Your task to perform on an android device: Go to wifi settings Image 0: 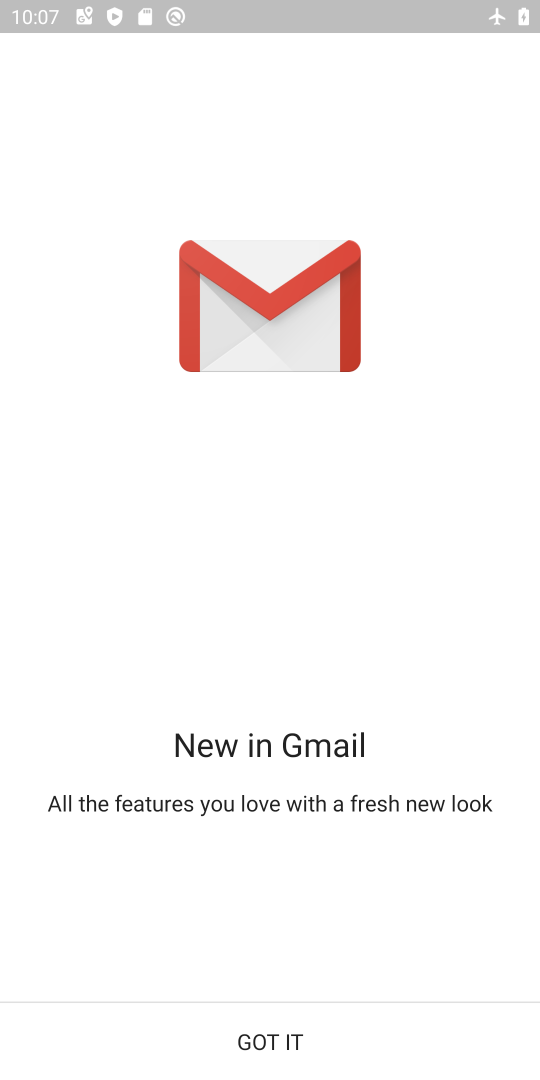
Step 0: press home button
Your task to perform on an android device: Go to wifi settings Image 1: 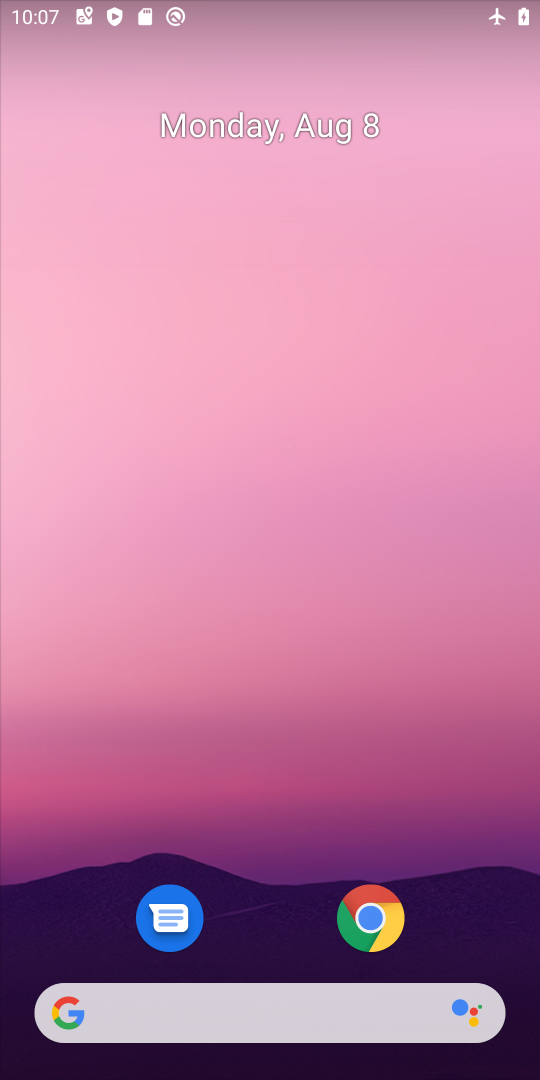
Step 1: drag from (321, 971) to (212, 54)
Your task to perform on an android device: Go to wifi settings Image 2: 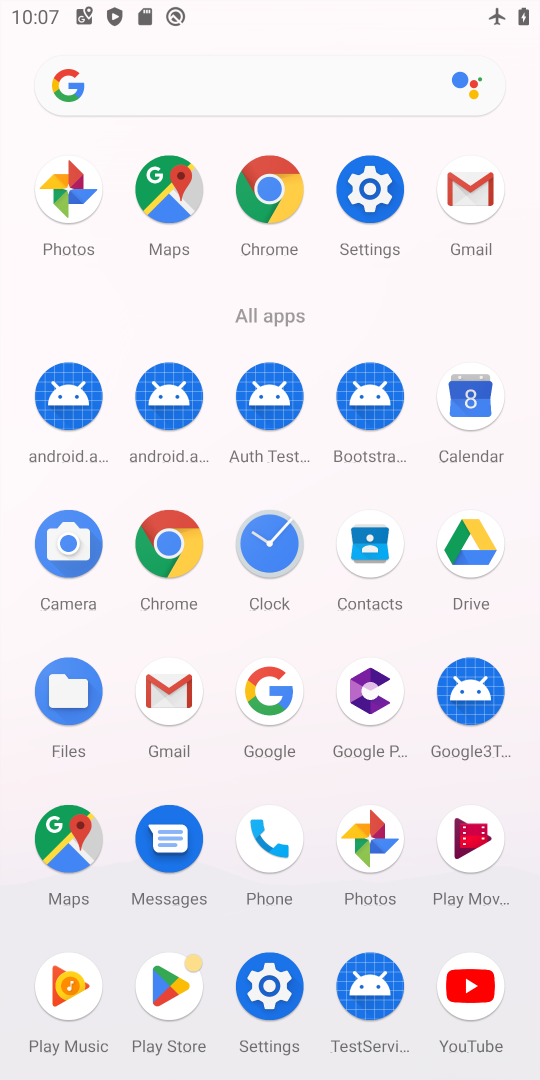
Step 2: click (345, 192)
Your task to perform on an android device: Go to wifi settings Image 3: 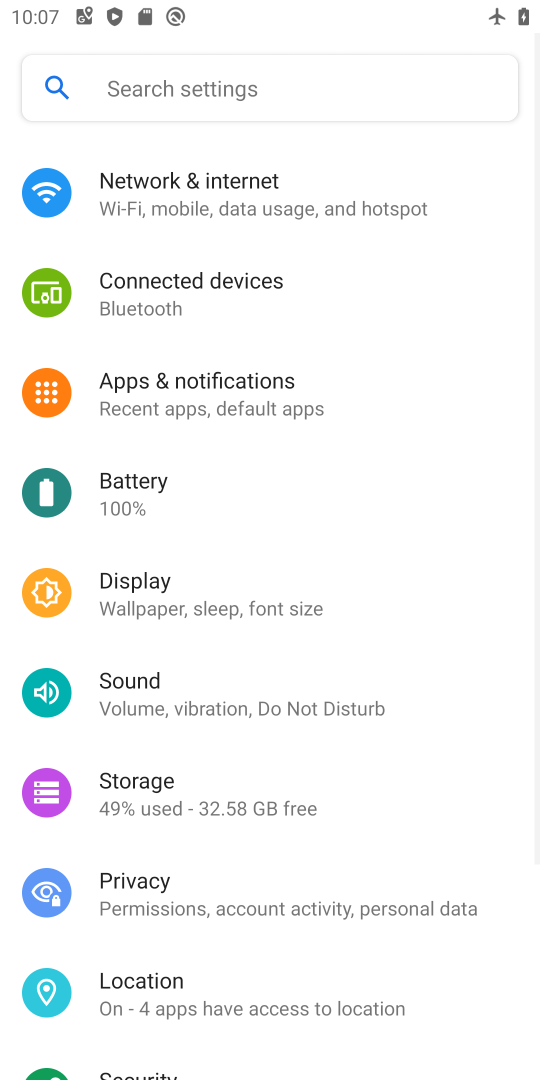
Step 3: click (285, 196)
Your task to perform on an android device: Go to wifi settings Image 4: 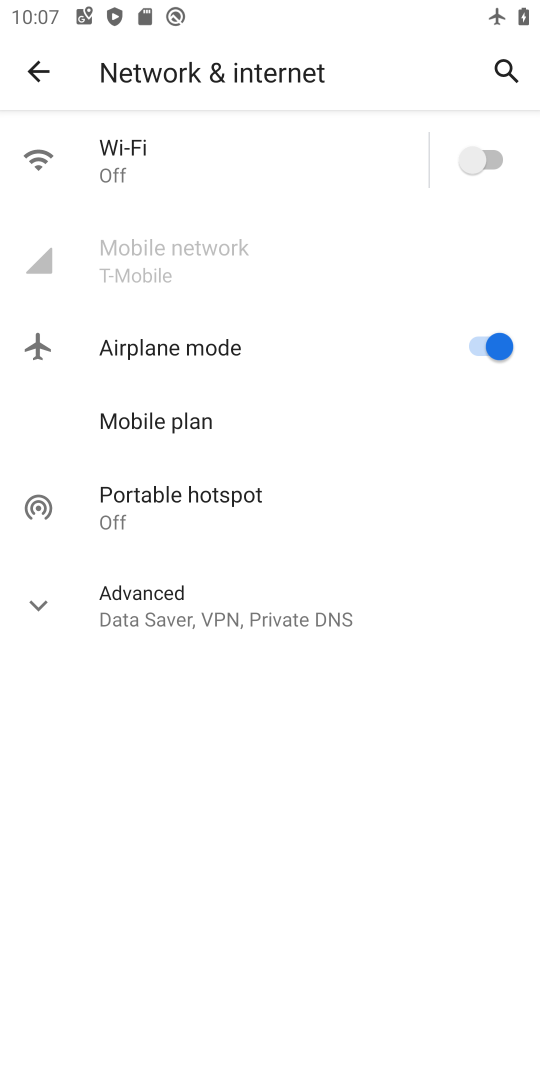
Step 4: click (196, 167)
Your task to perform on an android device: Go to wifi settings Image 5: 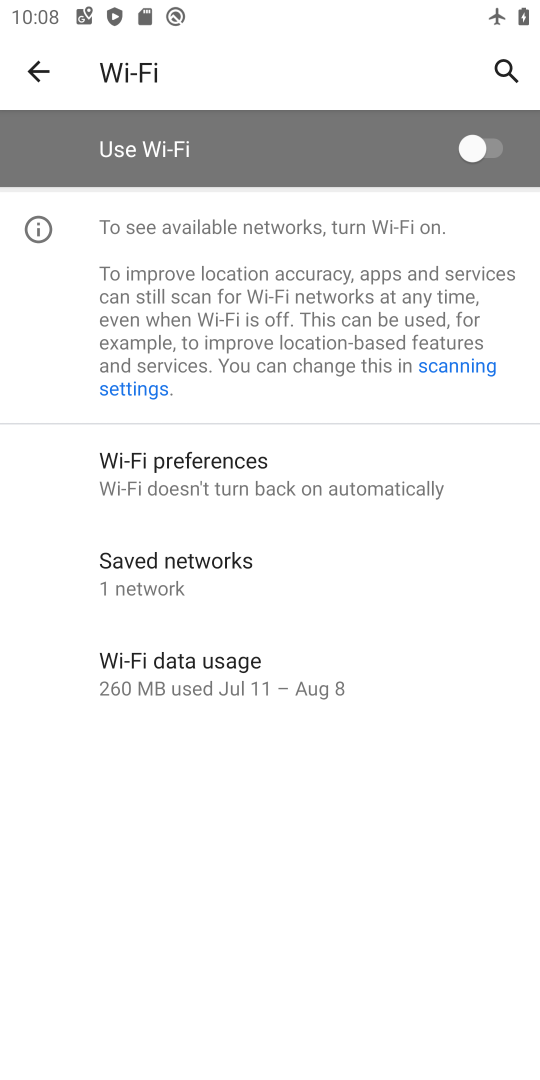
Step 5: task complete